Your task to perform on an android device: Open the calendar app, open the side menu, and click the "Day" option Image 0: 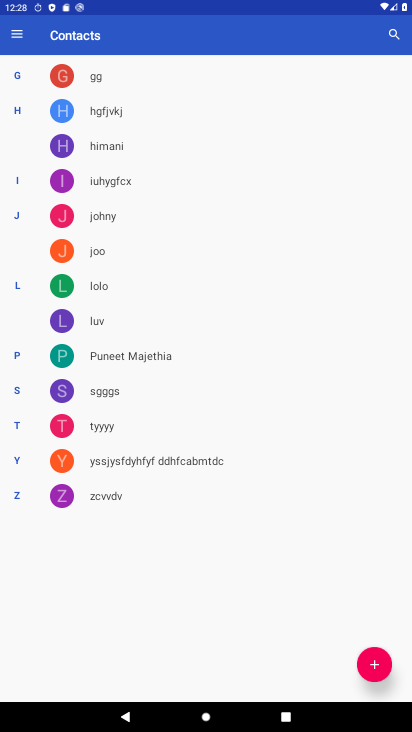
Step 0: press home button
Your task to perform on an android device: Open the calendar app, open the side menu, and click the "Day" option Image 1: 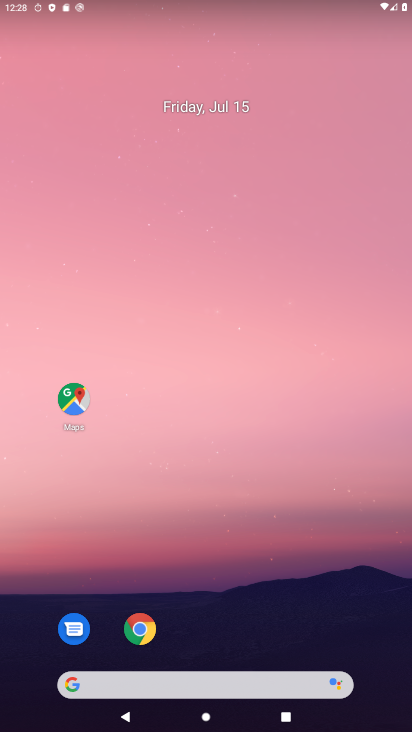
Step 1: drag from (191, 615) to (215, 49)
Your task to perform on an android device: Open the calendar app, open the side menu, and click the "Day" option Image 2: 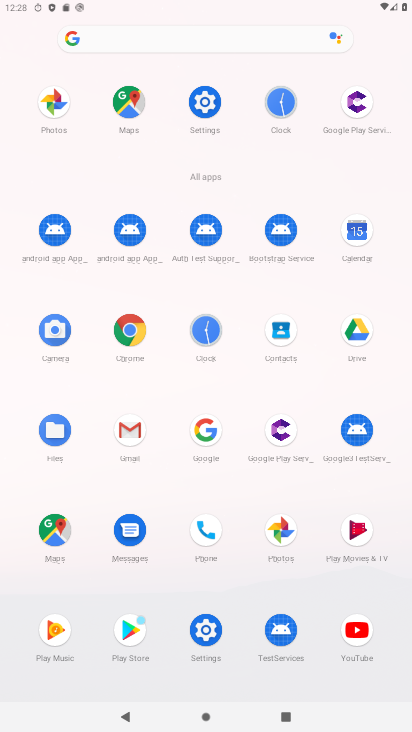
Step 2: click (353, 246)
Your task to perform on an android device: Open the calendar app, open the side menu, and click the "Day" option Image 3: 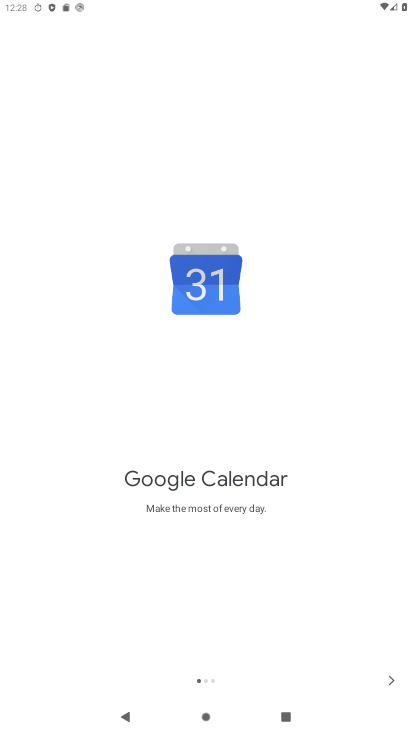
Step 3: click (386, 679)
Your task to perform on an android device: Open the calendar app, open the side menu, and click the "Day" option Image 4: 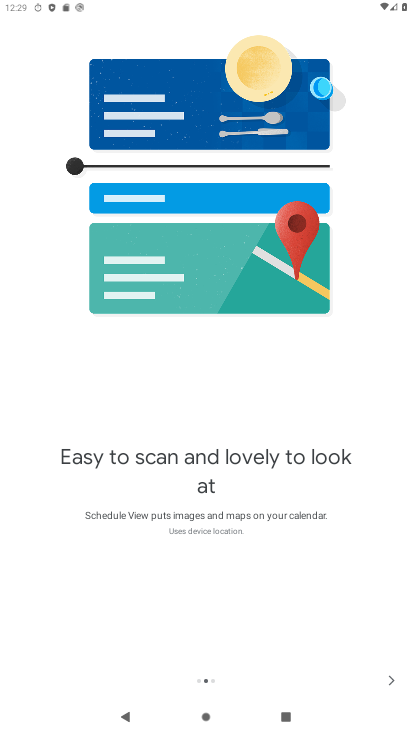
Step 4: click (384, 673)
Your task to perform on an android device: Open the calendar app, open the side menu, and click the "Day" option Image 5: 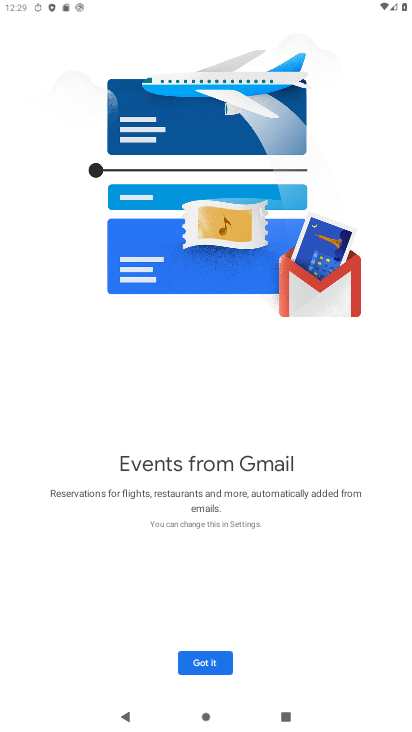
Step 5: click (216, 667)
Your task to perform on an android device: Open the calendar app, open the side menu, and click the "Day" option Image 6: 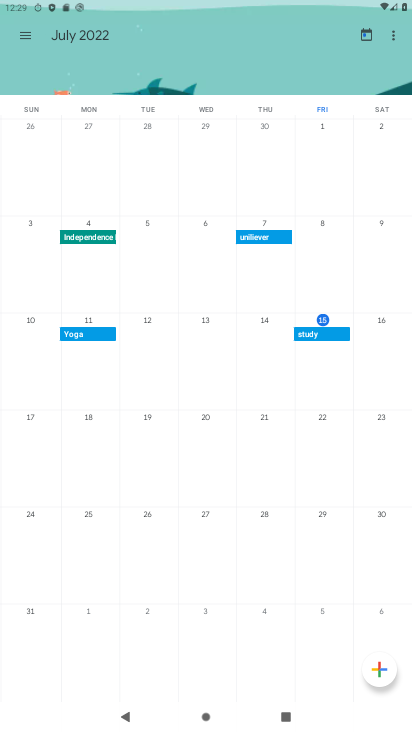
Step 6: click (22, 30)
Your task to perform on an android device: Open the calendar app, open the side menu, and click the "Day" option Image 7: 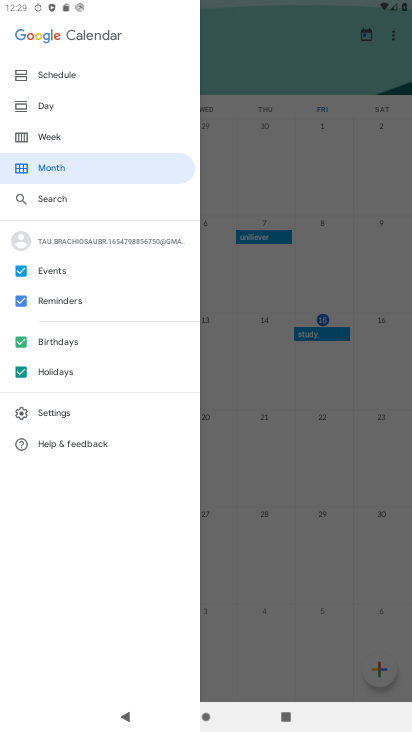
Step 7: click (56, 109)
Your task to perform on an android device: Open the calendar app, open the side menu, and click the "Day" option Image 8: 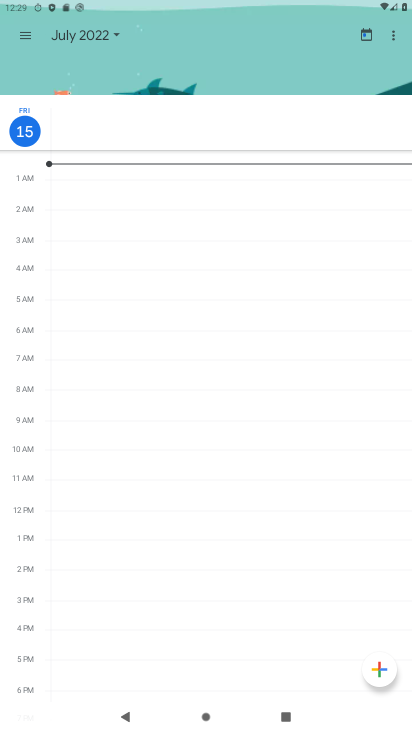
Step 8: task complete